Your task to perform on an android device: Clear the shopping cart on costco.com. Search for "rayovac triple a" on costco.com, select the first entry, and add it to the cart. Image 0: 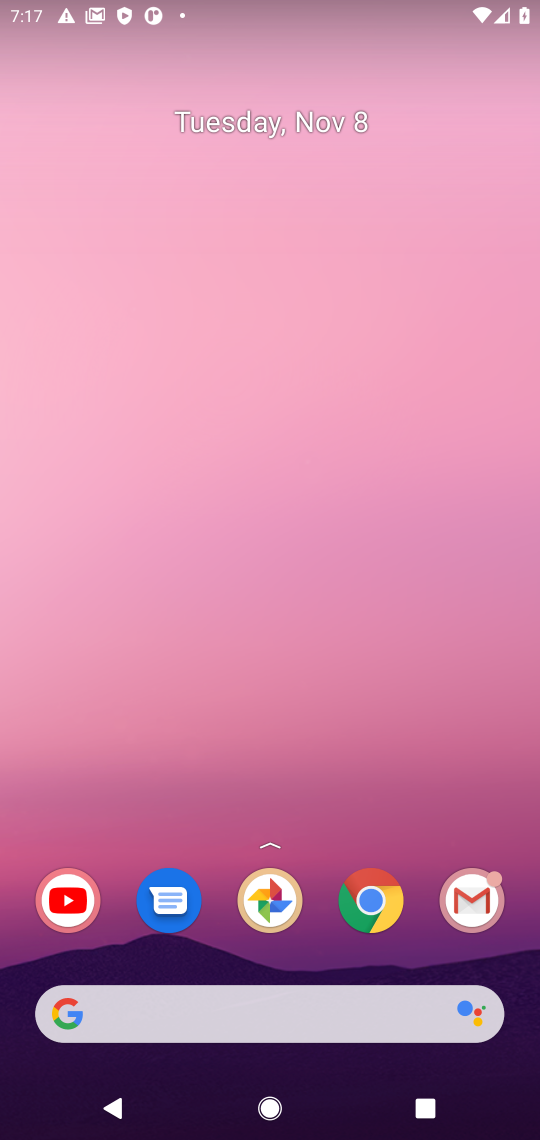
Step 0: click (377, 903)
Your task to perform on an android device: Clear the shopping cart on costco.com. Search for "rayovac triple a" on costco.com, select the first entry, and add it to the cart. Image 1: 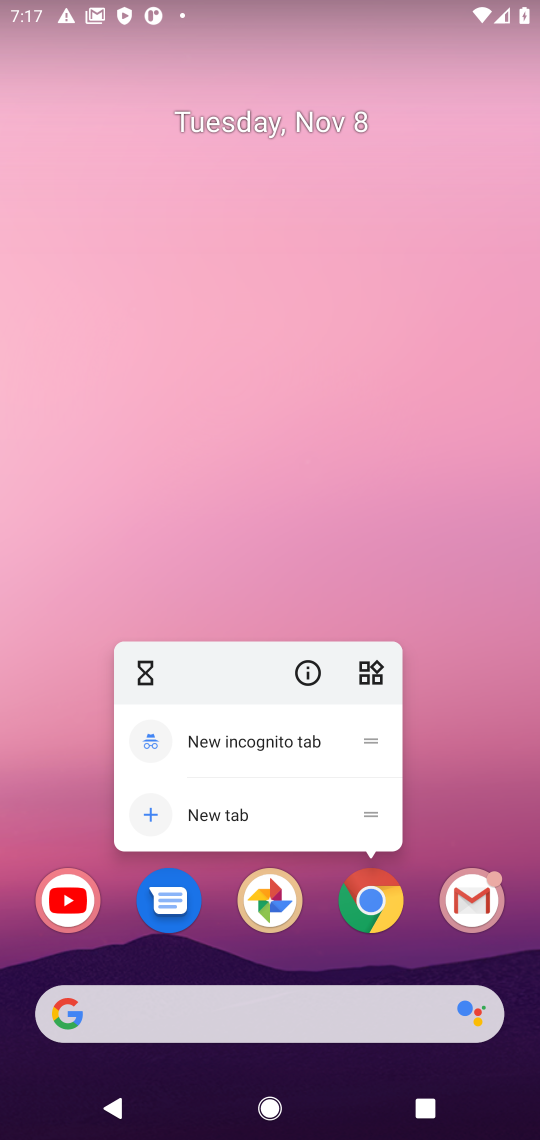
Step 1: click (377, 903)
Your task to perform on an android device: Clear the shopping cart on costco.com. Search for "rayovac triple a" on costco.com, select the first entry, and add it to the cart. Image 2: 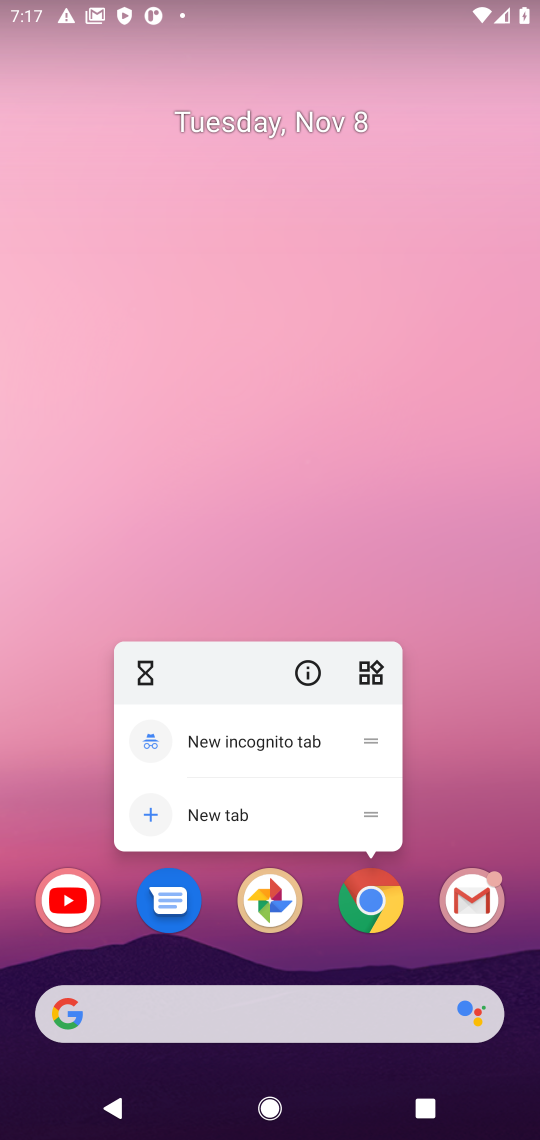
Step 2: click (377, 903)
Your task to perform on an android device: Clear the shopping cart on costco.com. Search for "rayovac triple a" on costco.com, select the first entry, and add it to the cart. Image 3: 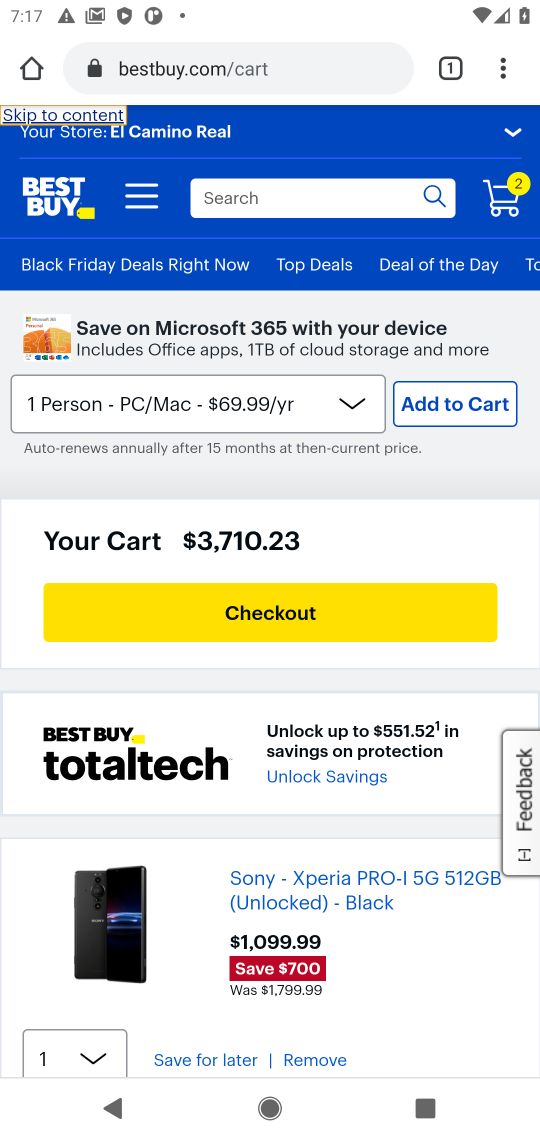
Step 3: click (240, 208)
Your task to perform on an android device: Clear the shopping cart on costco.com. Search for "rayovac triple a" on costco.com, select the first entry, and add it to the cart. Image 4: 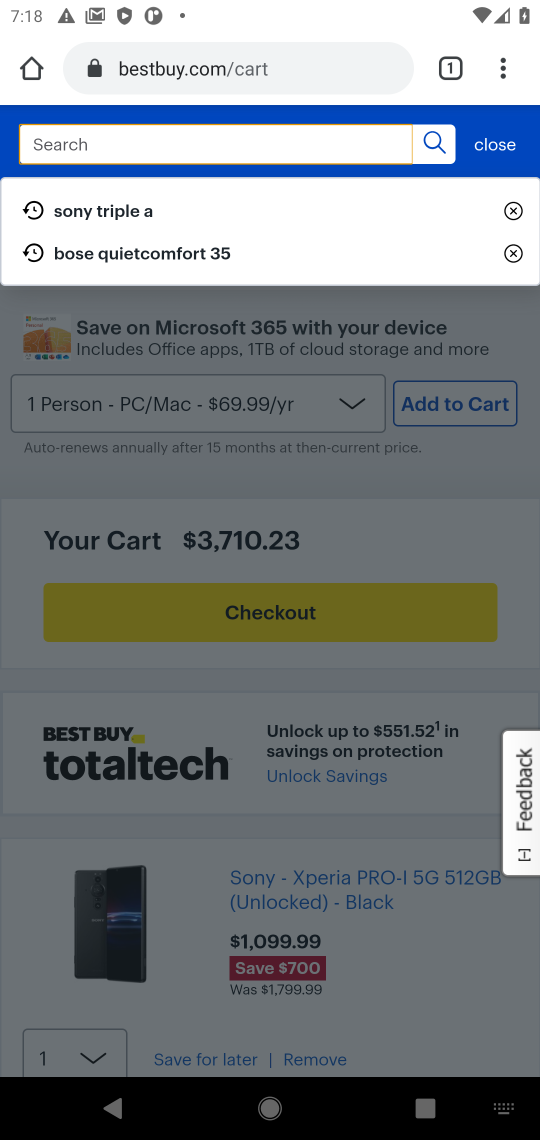
Step 4: type "costco"
Your task to perform on an android device: Clear the shopping cart on costco.com. Search for "rayovac triple a" on costco.com, select the first entry, and add it to the cart. Image 5: 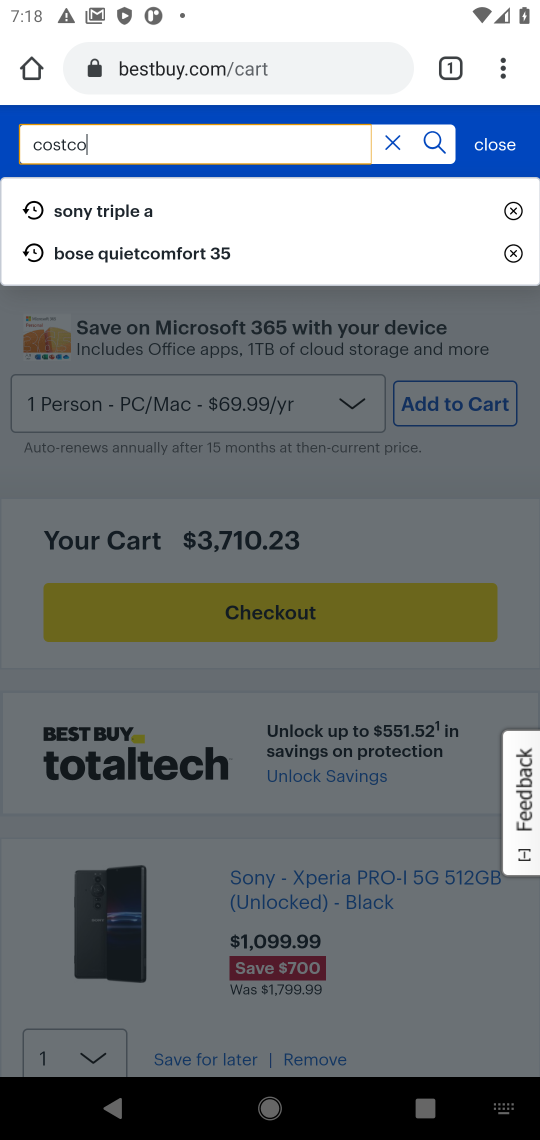
Step 5: type ""
Your task to perform on an android device: Clear the shopping cart on costco.com. Search for "rayovac triple a" on costco.com, select the first entry, and add it to the cart. Image 6: 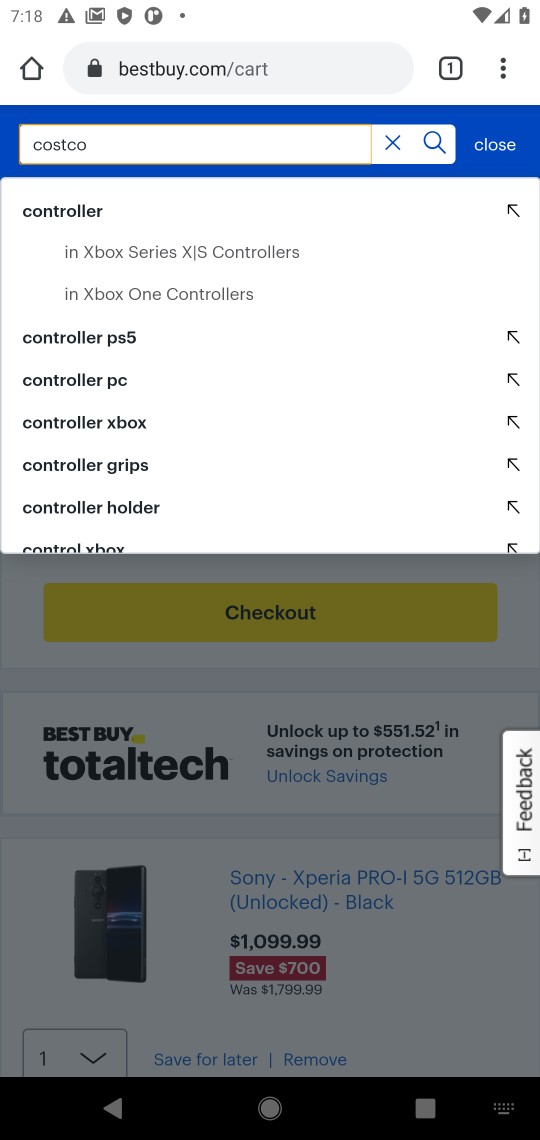
Step 6: click (448, 140)
Your task to perform on an android device: Clear the shopping cart on costco.com. Search for "rayovac triple a" on costco.com, select the first entry, and add it to the cart. Image 7: 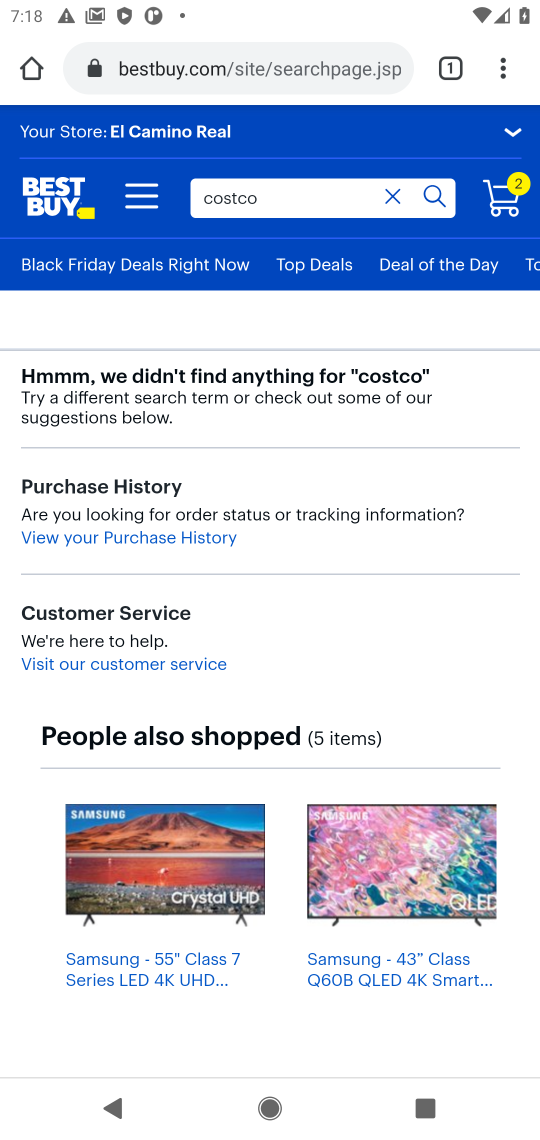
Step 7: drag from (220, 671) to (296, 237)
Your task to perform on an android device: Clear the shopping cart on costco.com. Search for "rayovac triple a" on costco.com, select the first entry, and add it to the cart. Image 8: 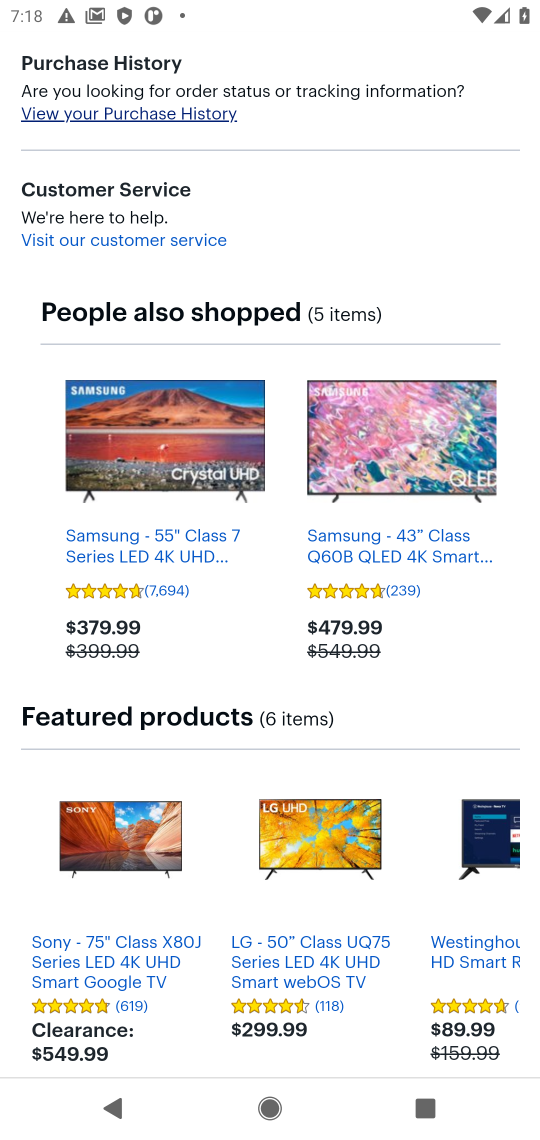
Step 8: click (145, 853)
Your task to perform on an android device: Clear the shopping cart on costco.com. Search for "rayovac triple a" on costco.com, select the first entry, and add it to the cart. Image 9: 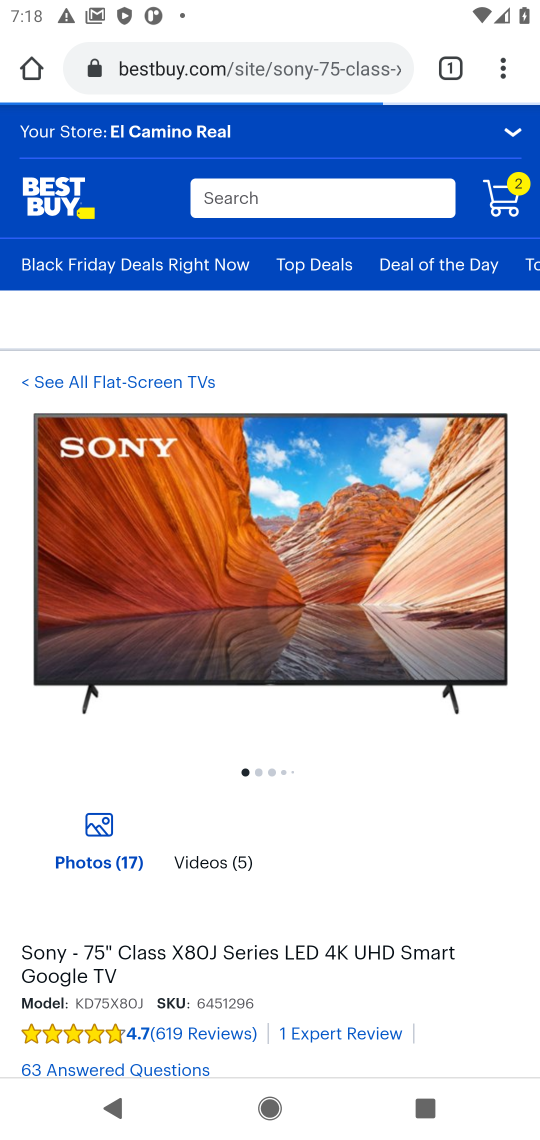
Step 9: click (230, 193)
Your task to perform on an android device: Clear the shopping cart on costco.com. Search for "rayovac triple a" on costco.com, select the first entry, and add it to the cart. Image 10: 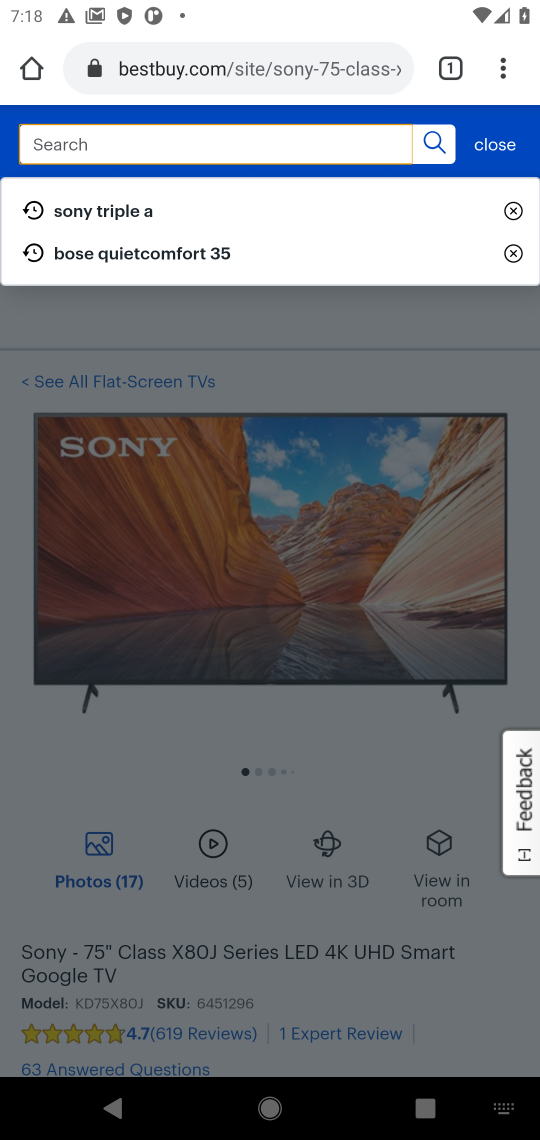
Step 10: type "rayovac triple"
Your task to perform on an android device: Clear the shopping cart on costco.com. Search for "rayovac triple a" on costco.com, select the first entry, and add it to the cart. Image 11: 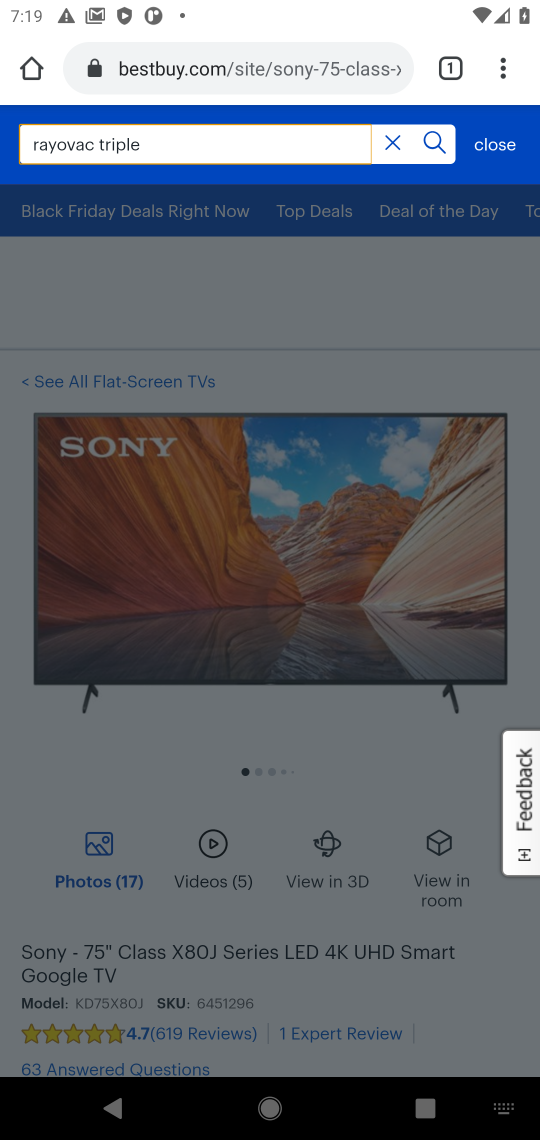
Step 11: drag from (208, 685) to (256, 257)
Your task to perform on an android device: Clear the shopping cart on costco.com. Search for "rayovac triple a" on costco.com, select the first entry, and add it to the cart. Image 12: 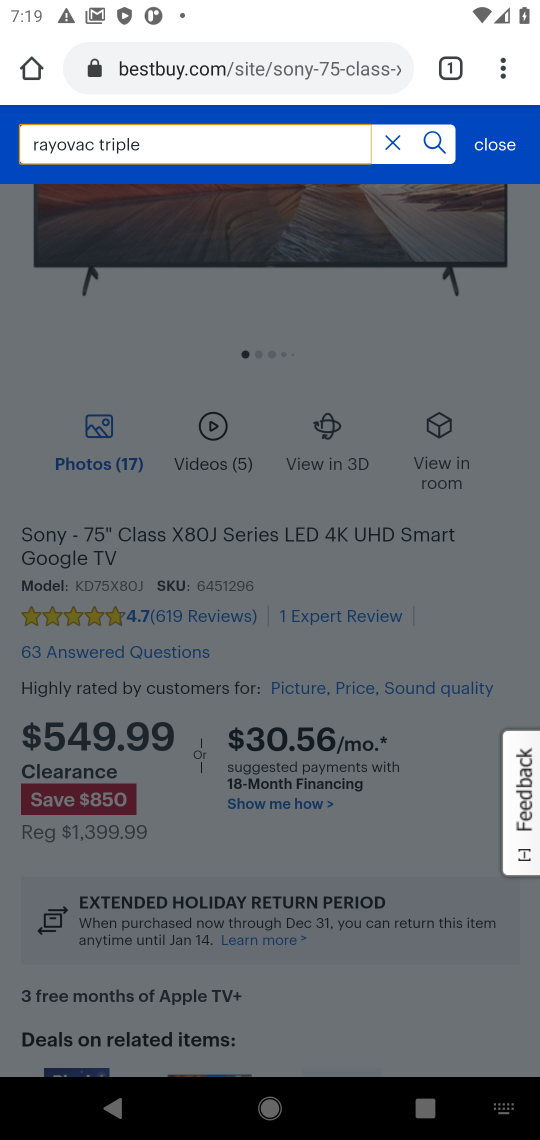
Step 12: drag from (189, 825) to (254, 407)
Your task to perform on an android device: Clear the shopping cart on costco.com. Search for "rayovac triple a" on costco.com, select the first entry, and add it to the cart. Image 13: 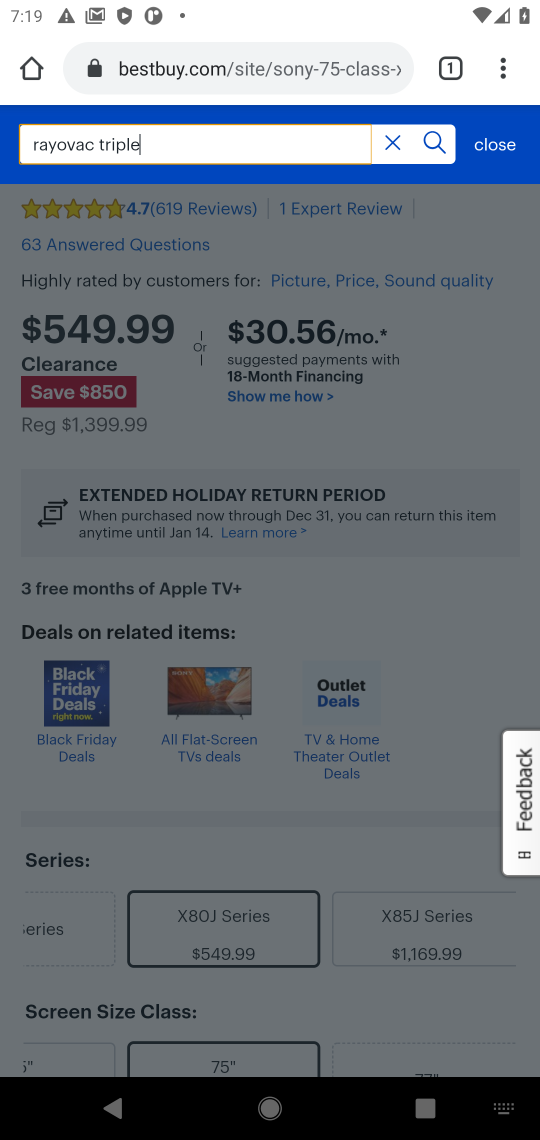
Step 13: drag from (247, 752) to (305, 390)
Your task to perform on an android device: Clear the shopping cart on costco.com. Search for "rayovac triple a" on costco.com, select the first entry, and add it to the cart. Image 14: 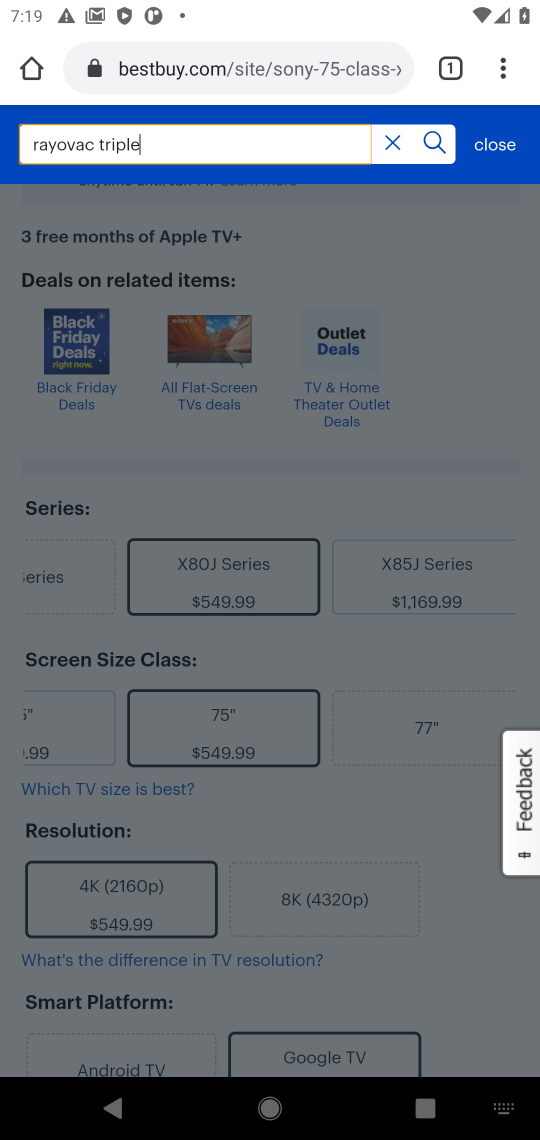
Step 14: drag from (109, 921) to (194, 425)
Your task to perform on an android device: Clear the shopping cart on costco.com. Search for "rayovac triple a" on costco.com, select the first entry, and add it to the cart. Image 15: 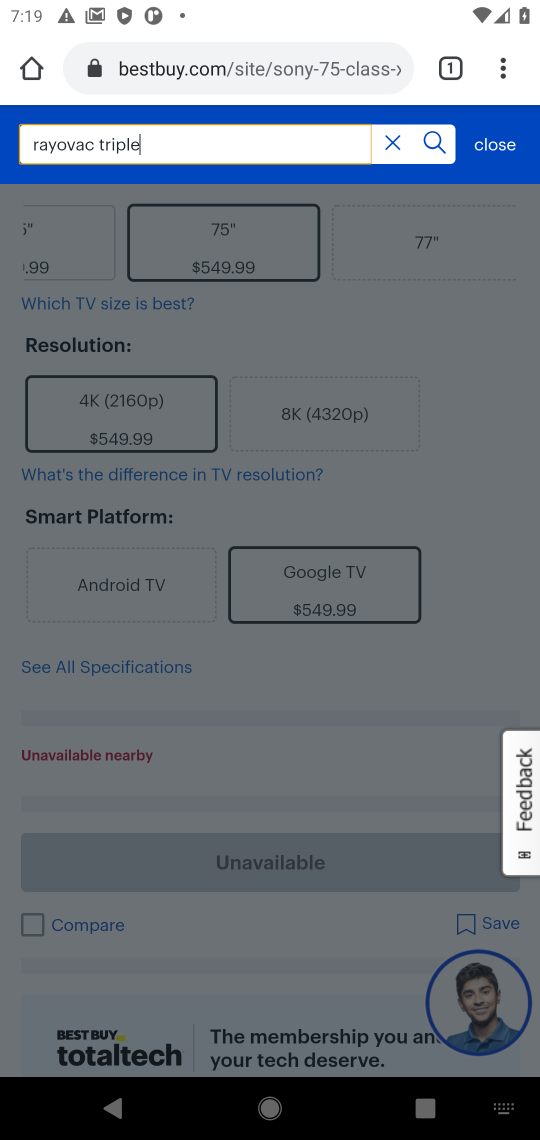
Step 15: drag from (246, 904) to (279, 334)
Your task to perform on an android device: Clear the shopping cart on costco.com. Search for "rayovac triple a" on costco.com, select the first entry, and add it to the cart. Image 16: 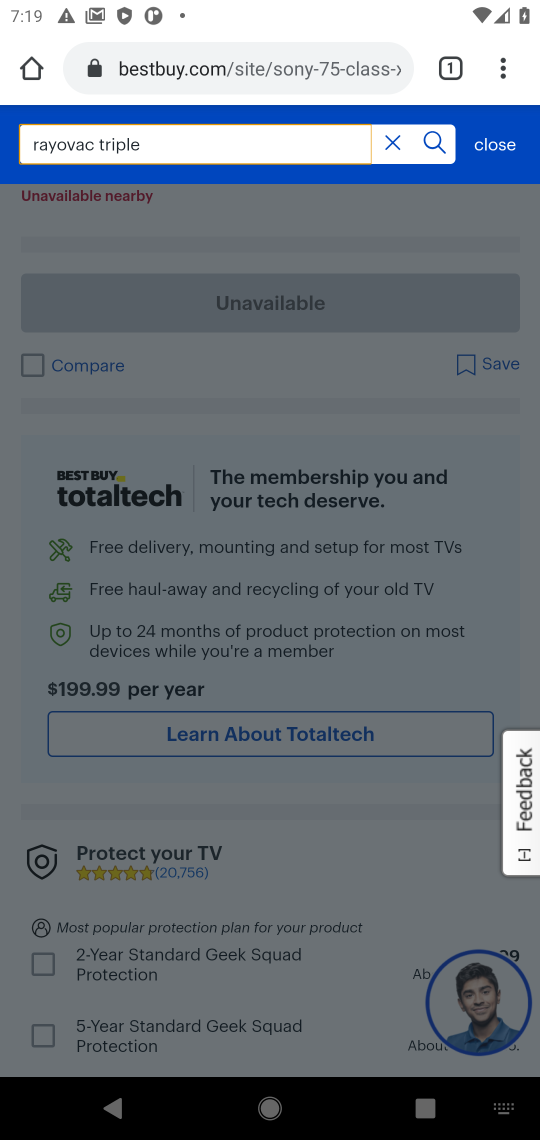
Step 16: drag from (256, 712) to (315, 324)
Your task to perform on an android device: Clear the shopping cart on costco.com. Search for "rayovac triple a" on costco.com, select the first entry, and add it to the cart. Image 17: 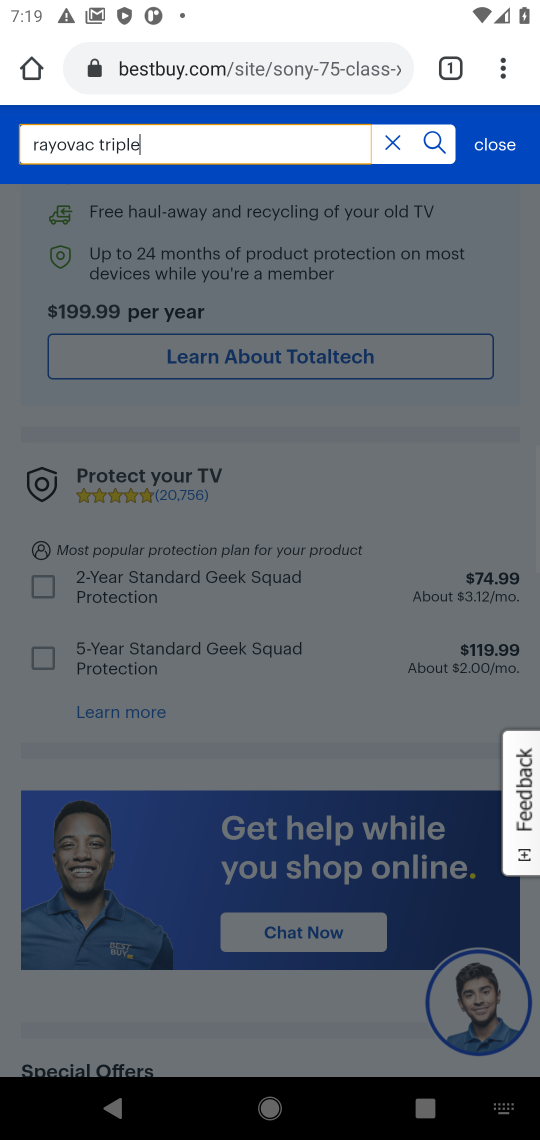
Step 17: drag from (334, 406) to (272, 1025)
Your task to perform on an android device: Clear the shopping cart on costco.com. Search for "rayovac triple a" on costco.com, select the first entry, and add it to the cart. Image 18: 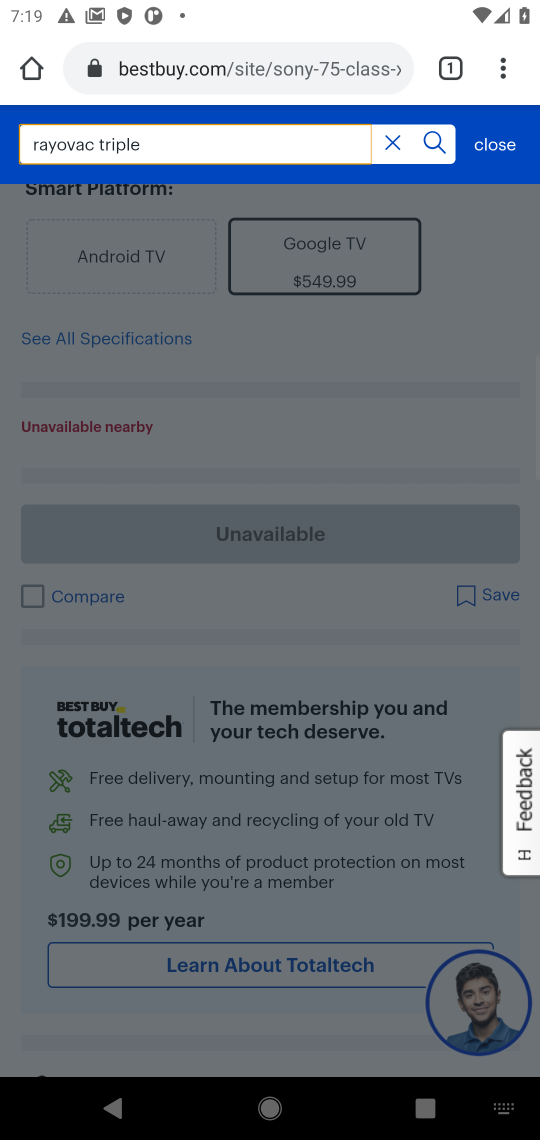
Step 18: drag from (257, 472) to (245, 1017)
Your task to perform on an android device: Clear the shopping cart on costco.com. Search for "rayovac triple a" on costco.com, select the first entry, and add it to the cart. Image 19: 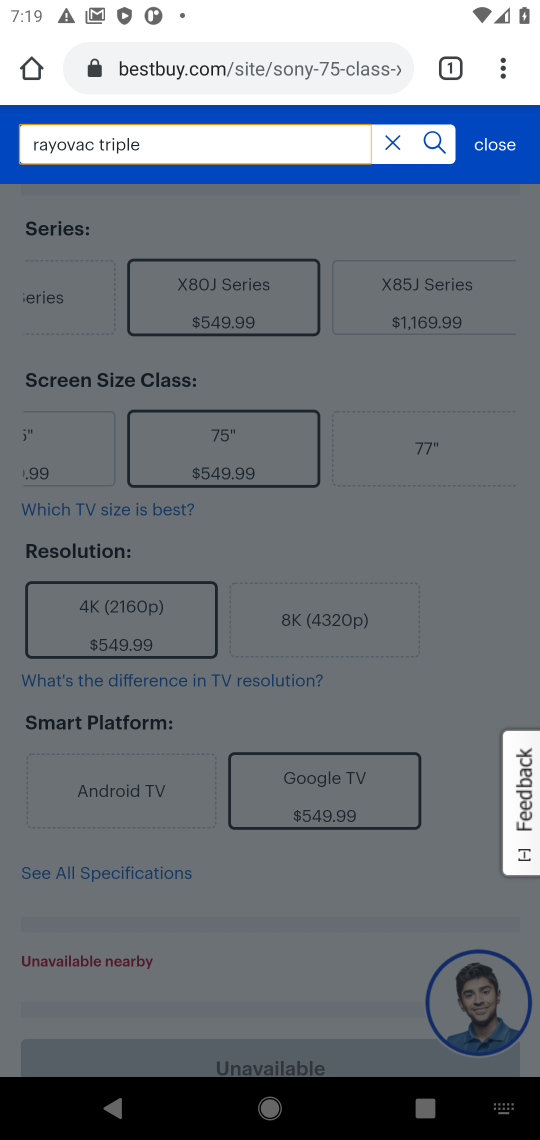
Step 19: drag from (294, 542) to (234, 988)
Your task to perform on an android device: Clear the shopping cart on costco.com. Search for "rayovac triple a" on costco.com, select the first entry, and add it to the cart. Image 20: 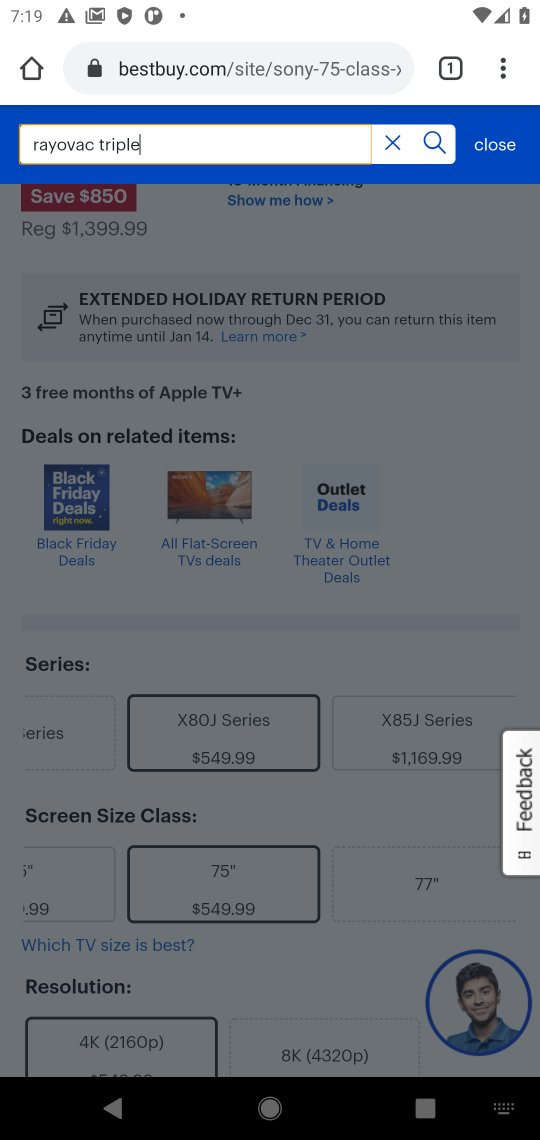
Step 20: drag from (392, 504) to (413, 912)
Your task to perform on an android device: Clear the shopping cart on costco.com. Search for "rayovac triple a" on costco.com, select the first entry, and add it to the cart. Image 21: 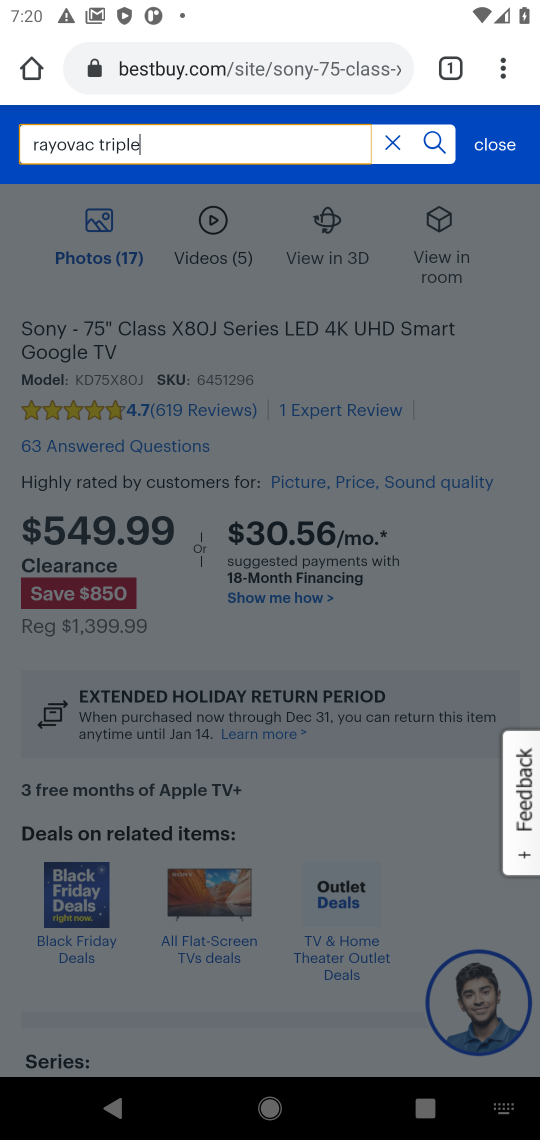
Step 21: drag from (350, 761) to (314, 175)
Your task to perform on an android device: Clear the shopping cart on costco.com. Search for "rayovac triple a" on costco.com, select the first entry, and add it to the cart. Image 22: 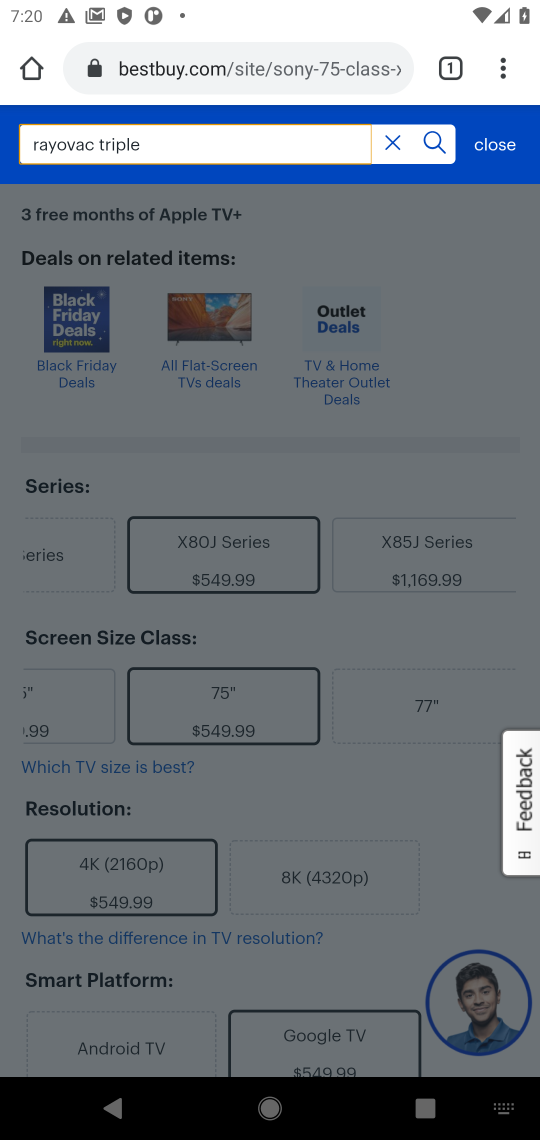
Step 22: drag from (283, 903) to (261, 380)
Your task to perform on an android device: Clear the shopping cart on costco.com. Search for "rayovac triple a" on costco.com, select the first entry, and add it to the cart. Image 23: 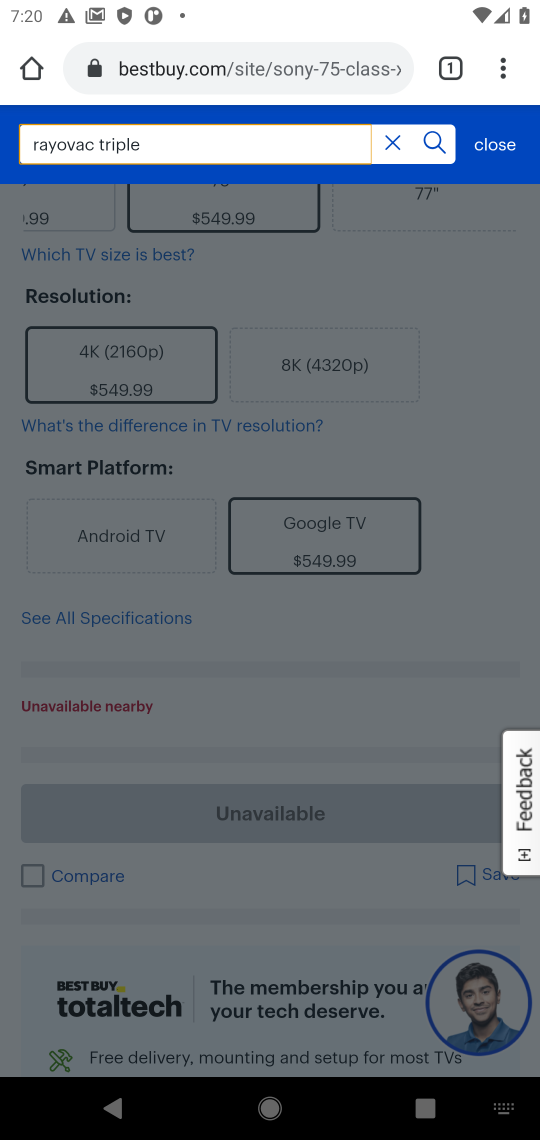
Step 23: drag from (400, 433) to (268, 1069)
Your task to perform on an android device: Clear the shopping cart on costco.com. Search for "rayovac triple a" on costco.com, select the first entry, and add it to the cart. Image 24: 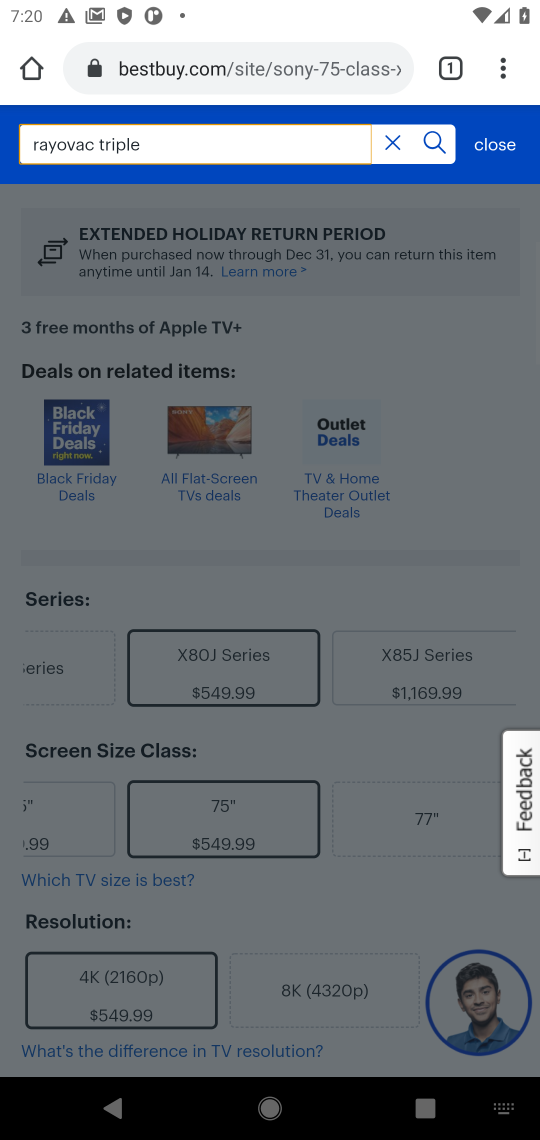
Step 24: drag from (383, 525) to (313, 1065)
Your task to perform on an android device: Clear the shopping cart on costco.com. Search for "rayovac triple a" on costco.com, select the first entry, and add it to the cart. Image 25: 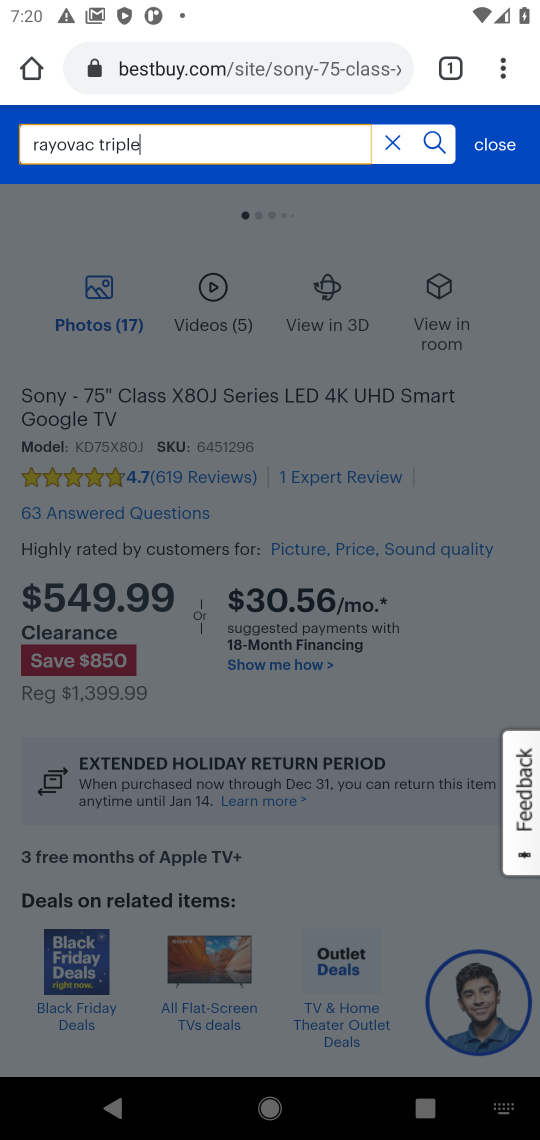
Step 25: drag from (291, 595) to (9, 696)
Your task to perform on an android device: Clear the shopping cart on costco.com. Search for "rayovac triple a" on costco.com, select the first entry, and add it to the cart. Image 26: 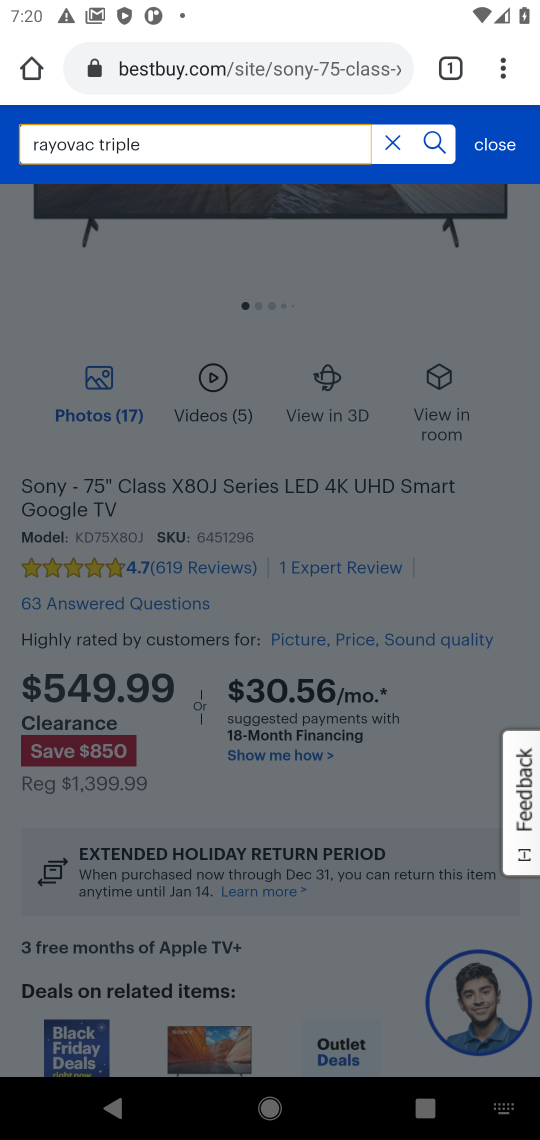
Step 26: drag from (262, 424) to (312, 844)
Your task to perform on an android device: Clear the shopping cart on costco.com. Search for "rayovac triple a" on costco.com, select the first entry, and add it to the cart. Image 27: 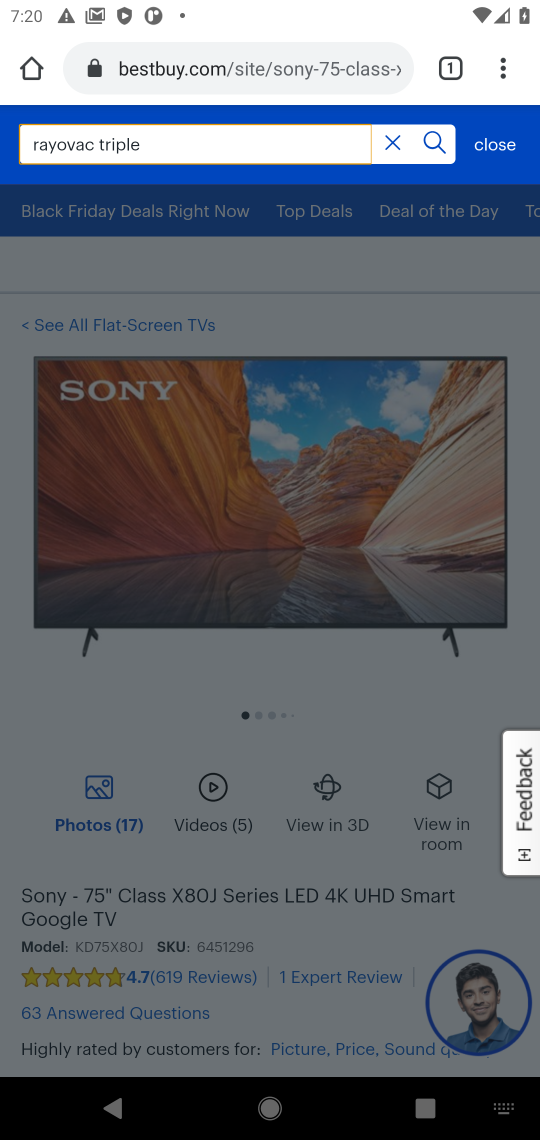
Step 27: click (282, 524)
Your task to perform on an android device: Clear the shopping cart on costco.com. Search for "rayovac triple a" on costco.com, select the first entry, and add it to the cart. Image 28: 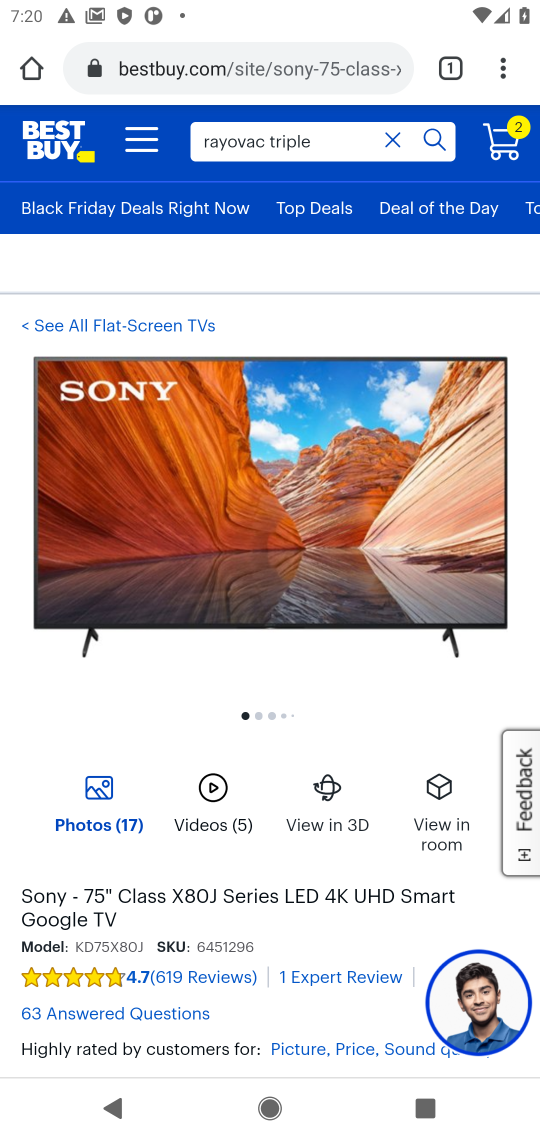
Step 28: task complete